Your task to perform on an android device: turn on javascript in the chrome app Image 0: 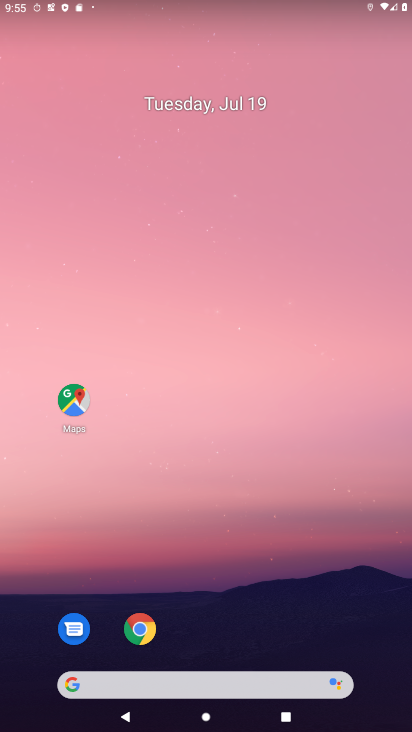
Step 0: click (144, 632)
Your task to perform on an android device: turn on javascript in the chrome app Image 1: 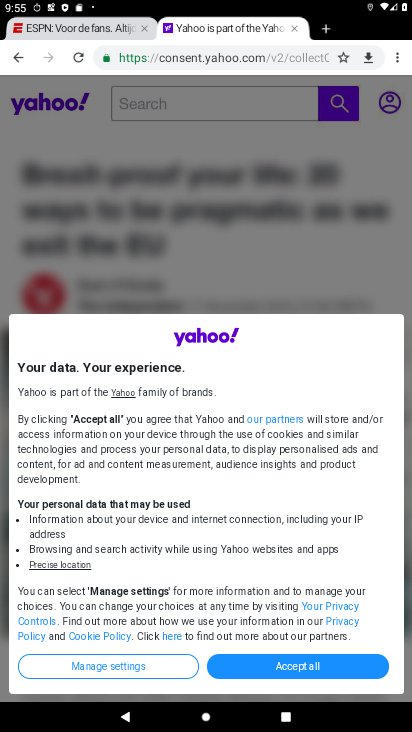
Step 1: click (400, 52)
Your task to perform on an android device: turn on javascript in the chrome app Image 2: 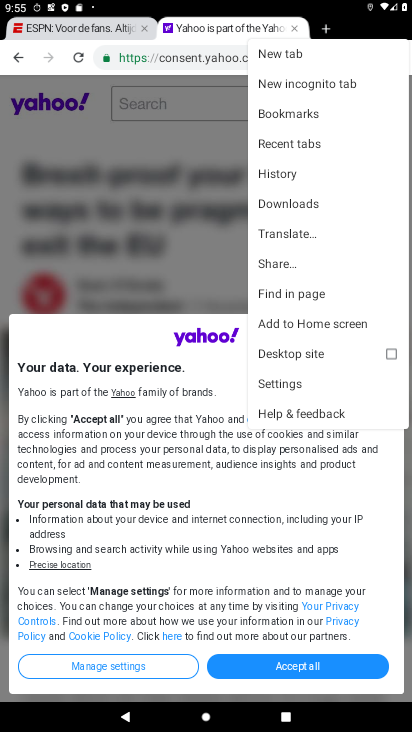
Step 2: click (280, 379)
Your task to perform on an android device: turn on javascript in the chrome app Image 3: 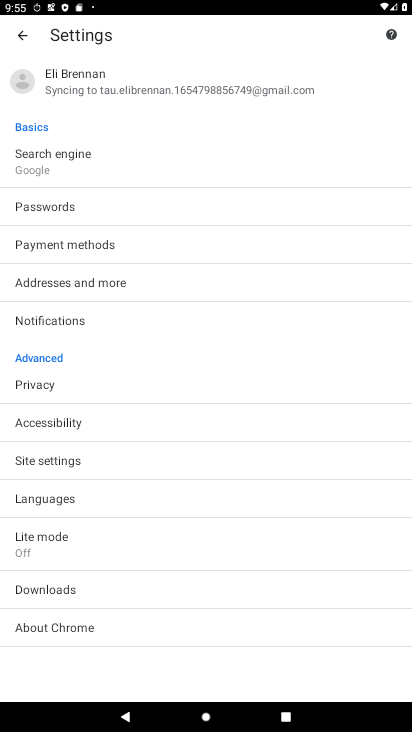
Step 3: click (57, 458)
Your task to perform on an android device: turn on javascript in the chrome app Image 4: 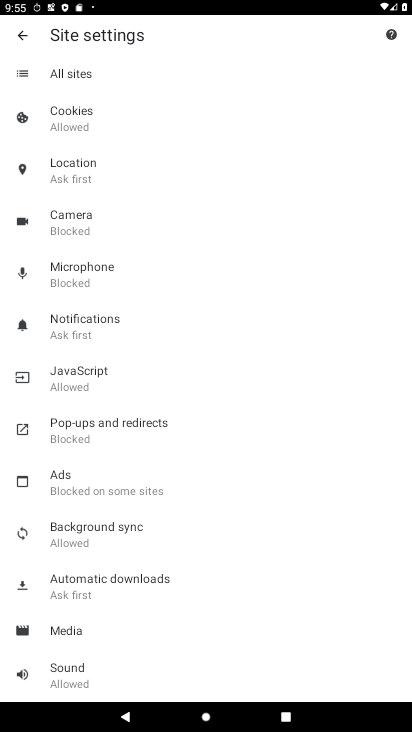
Step 4: click (85, 384)
Your task to perform on an android device: turn on javascript in the chrome app Image 5: 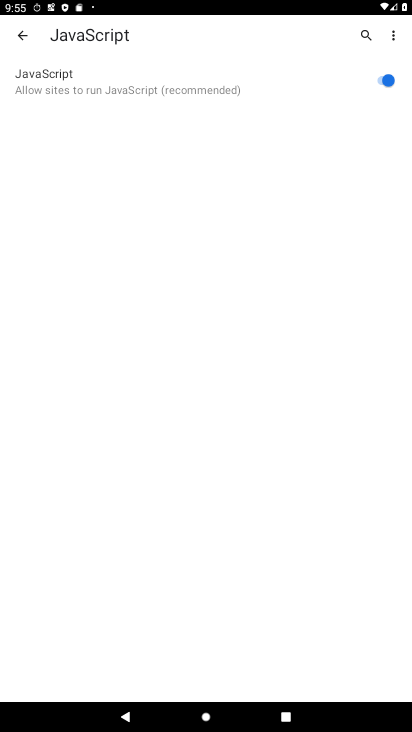
Step 5: task complete